Your task to perform on an android device: install app "Google News" Image 0: 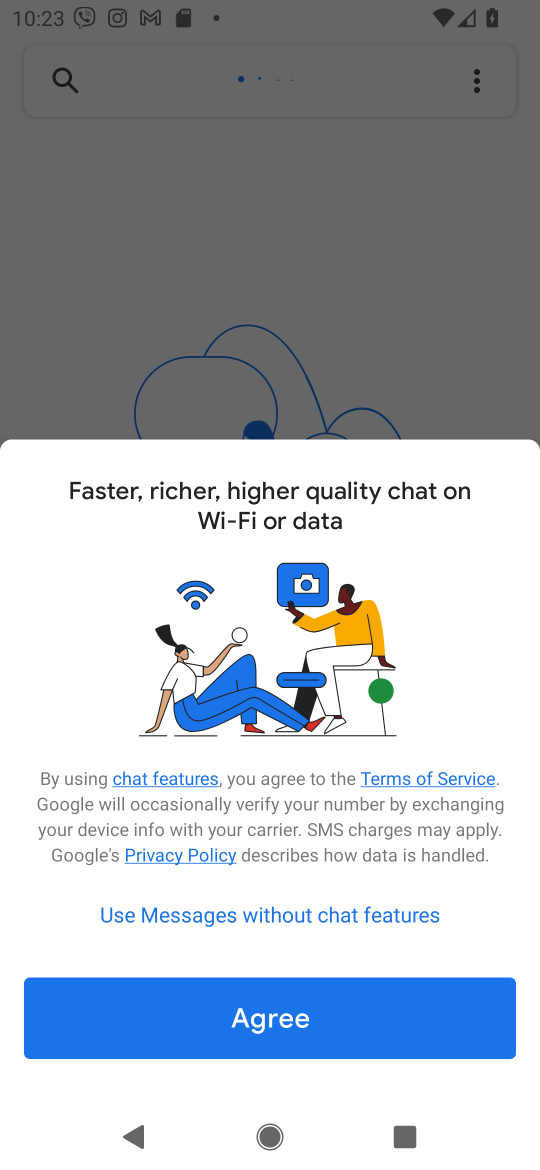
Step 0: press home button
Your task to perform on an android device: install app "Google News" Image 1: 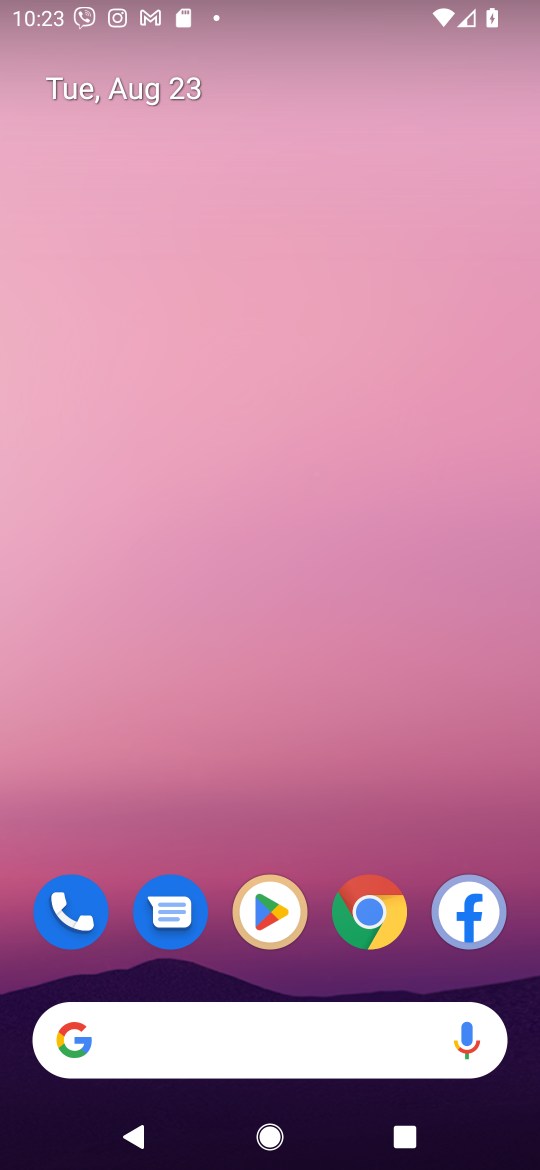
Step 1: task complete